Your task to perform on an android device: move a message to another label in the gmail app Image 0: 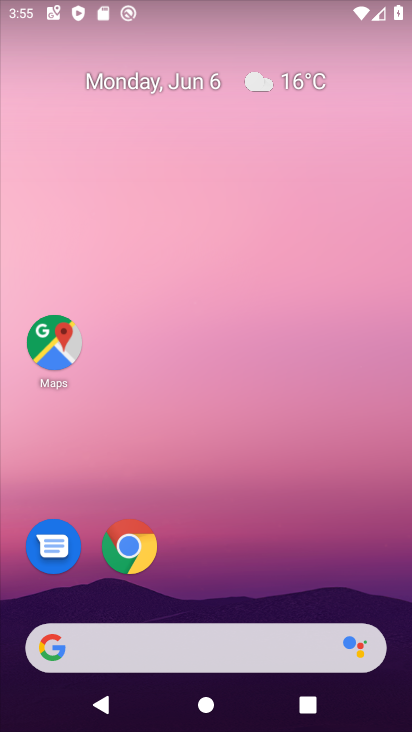
Step 0: drag from (309, 558) to (316, 2)
Your task to perform on an android device: move a message to another label in the gmail app Image 1: 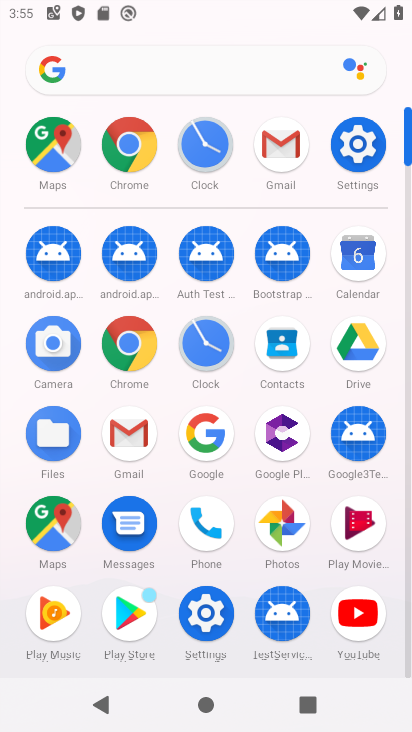
Step 1: click (274, 147)
Your task to perform on an android device: move a message to another label in the gmail app Image 2: 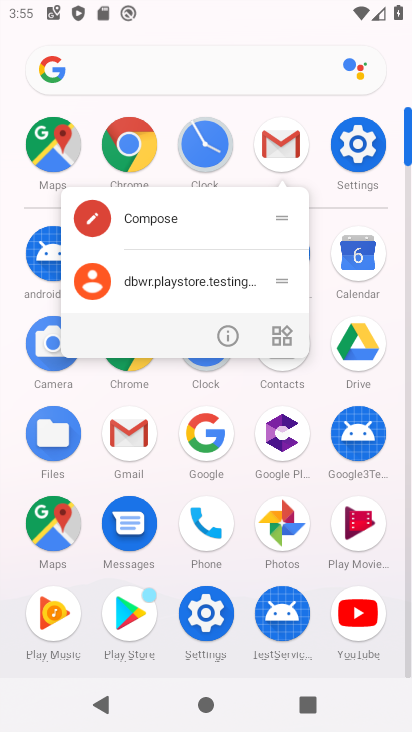
Step 2: click (274, 147)
Your task to perform on an android device: move a message to another label in the gmail app Image 3: 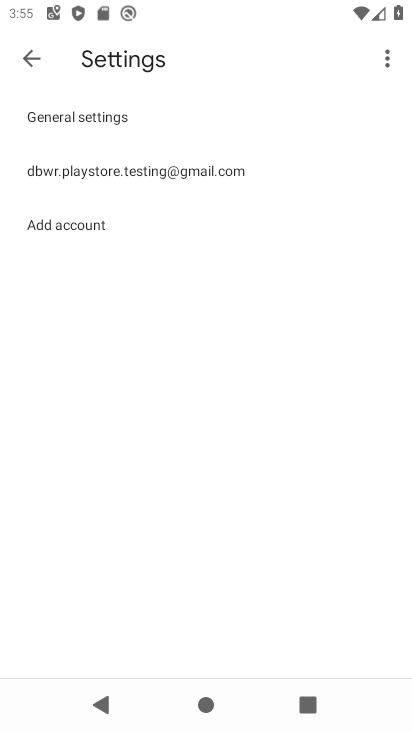
Step 3: click (14, 75)
Your task to perform on an android device: move a message to another label in the gmail app Image 4: 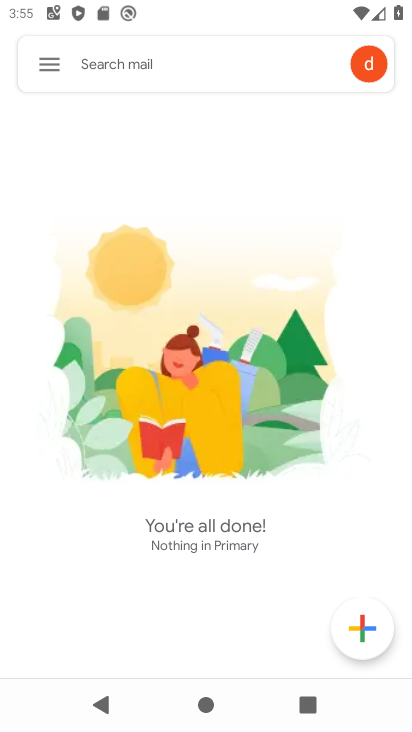
Step 4: click (57, 84)
Your task to perform on an android device: move a message to another label in the gmail app Image 5: 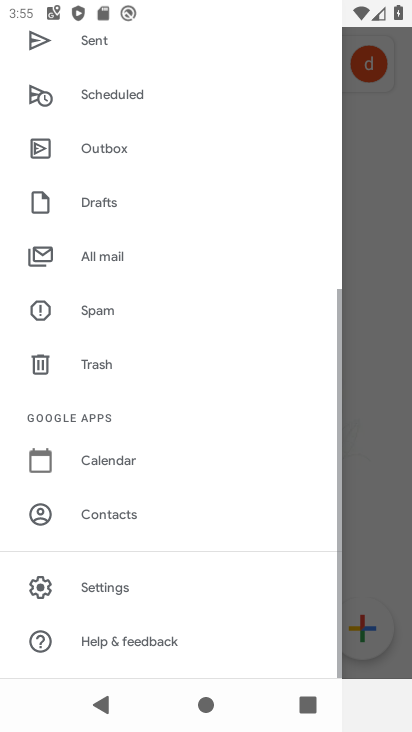
Step 5: drag from (142, 190) to (201, 560)
Your task to perform on an android device: move a message to another label in the gmail app Image 6: 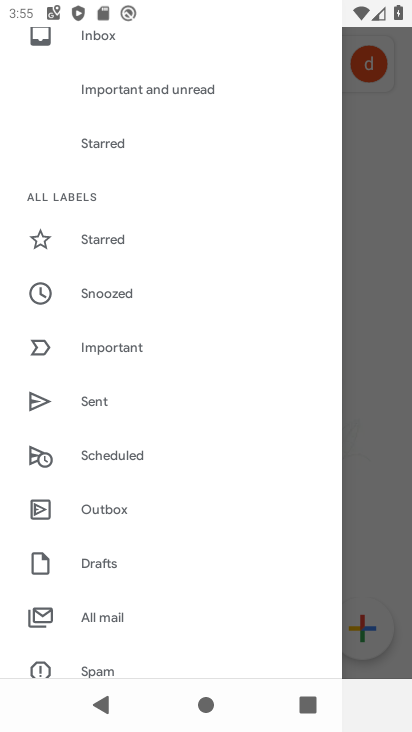
Step 6: drag from (127, 123) to (154, 459)
Your task to perform on an android device: move a message to another label in the gmail app Image 7: 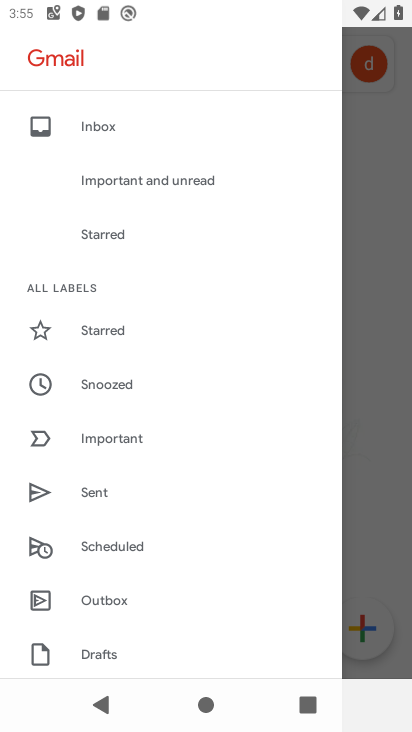
Step 7: click (92, 136)
Your task to perform on an android device: move a message to another label in the gmail app Image 8: 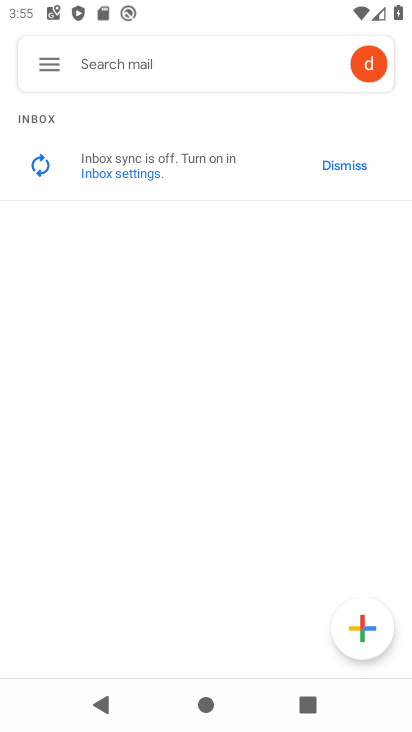
Step 8: task complete